Your task to perform on an android device: Go to Wikipedia Image 0: 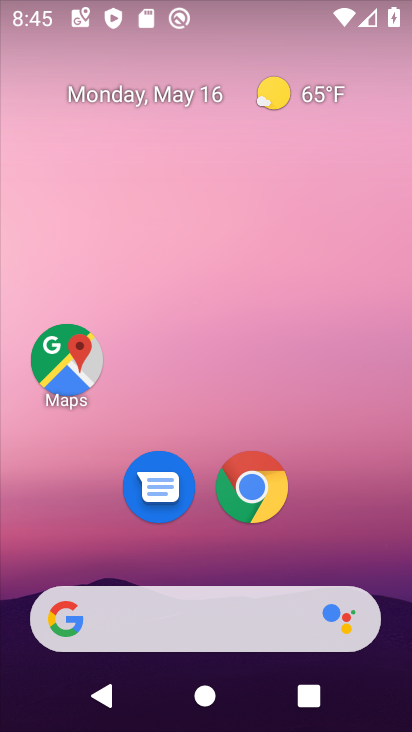
Step 0: drag from (321, 480) to (328, 126)
Your task to perform on an android device: Go to Wikipedia Image 1: 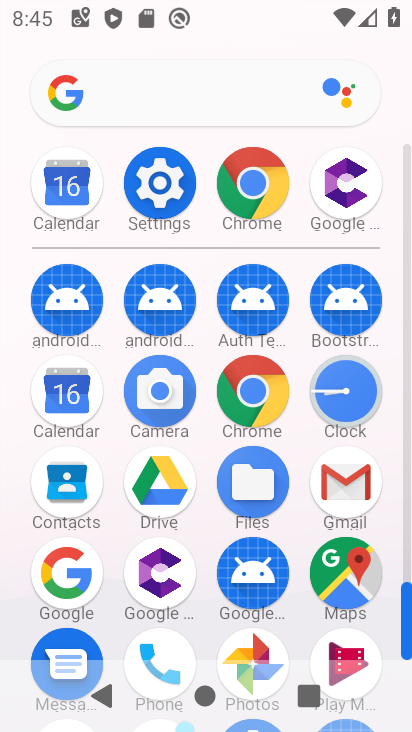
Step 1: click (245, 196)
Your task to perform on an android device: Go to Wikipedia Image 2: 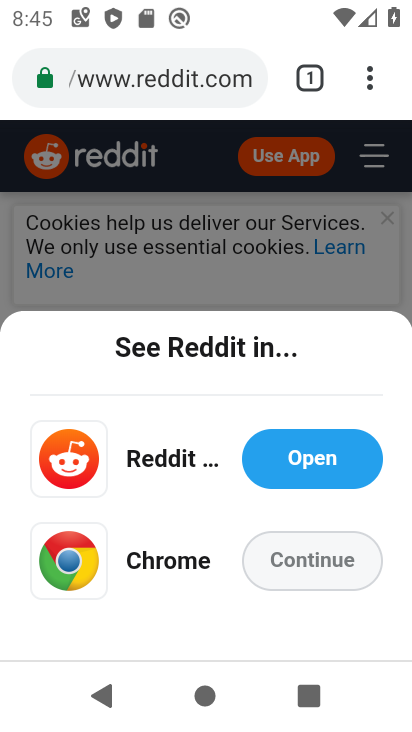
Step 2: click (345, 462)
Your task to perform on an android device: Go to Wikipedia Image 3: 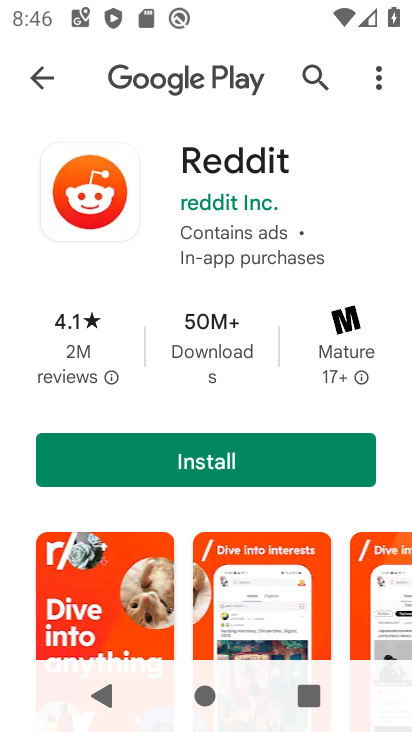
Step 3: click (39, 95)
Your task to perform on an android device: Go to Wikipedia Image 4: 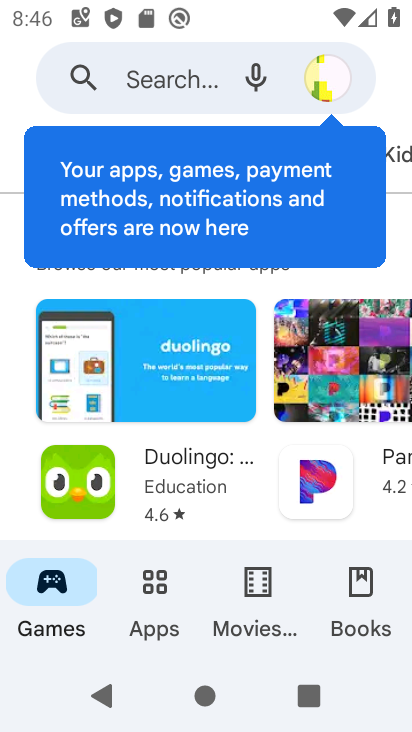
Step 4: press home button
Your task to perform on an android device: Go to Wikipedia Image 5: 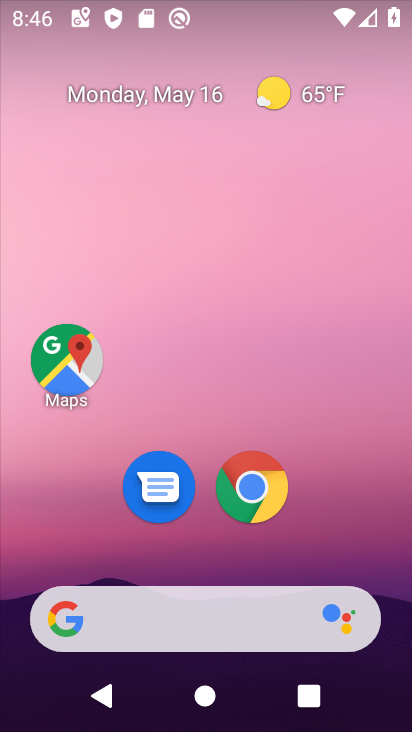
Step 5: click (259, 476)
Your task to perform on an android device: Go to Wikipedia Image 6: 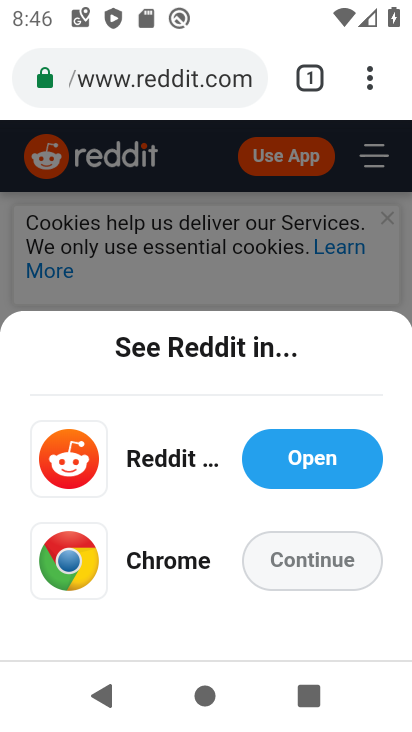
Step 6: press back button
Your task to perform on an android device: Go to Wikipedia Image 7: 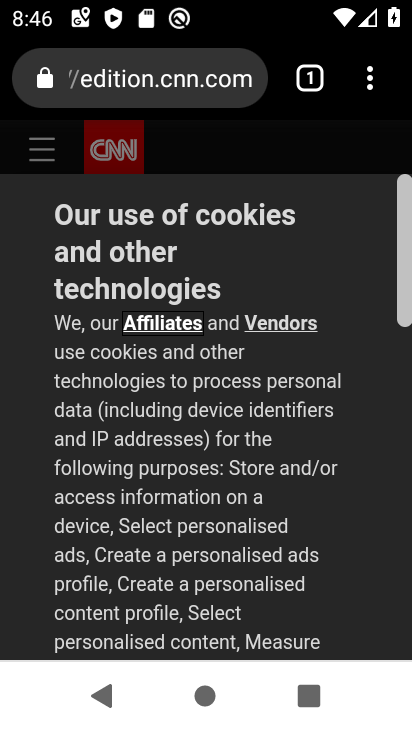
Step 7: click (154, 86)
Your task to perform on an android device: Go to Wikipedia Image 8: 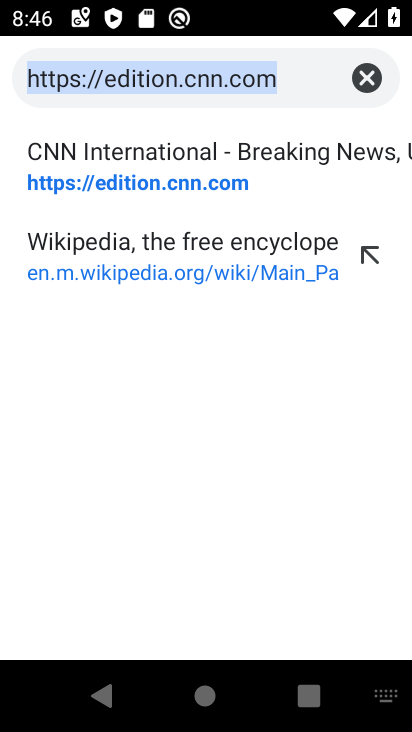
Step 8: click (377, 86)
Your task to perform on an android device: Go to Wikipedia Image 9: 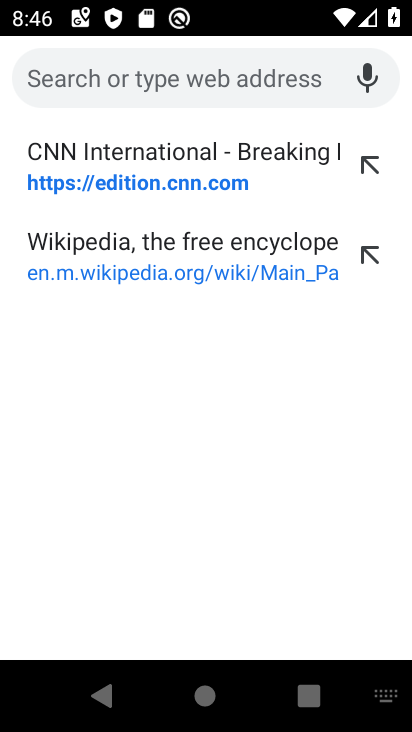
Step 9: type "wikipedia"
Your task to perform on an android device: Go to Wikipedia Image 10: 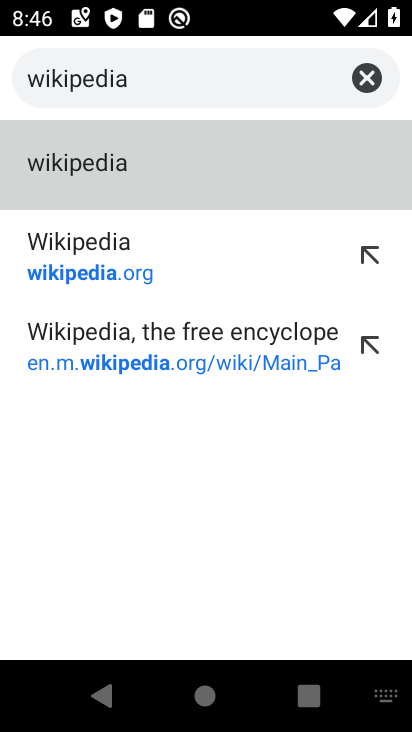
Step 10: click (111, 255)
Your task to perform on an android device: Go to Wikipedia Image 11: 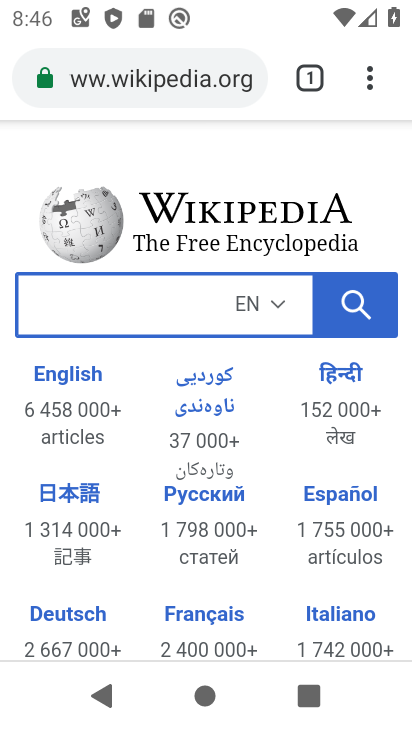
Step 11: task complete